Your task to perform on an android device: Open accessibility settings Image 0: 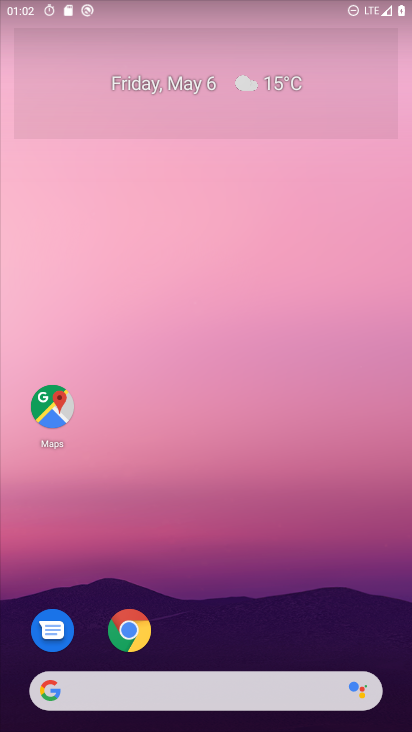
Step 0: drag from (333, 619) to (325, 137)
Your task to perform on an android device: Open accessibility settings Image 1: 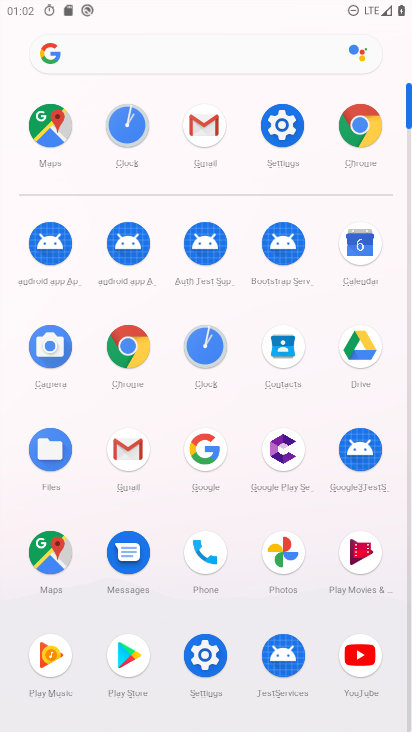
Step 1: click (269, 128)
Your task to perform on an android device: Open accessibility settings Image 2: 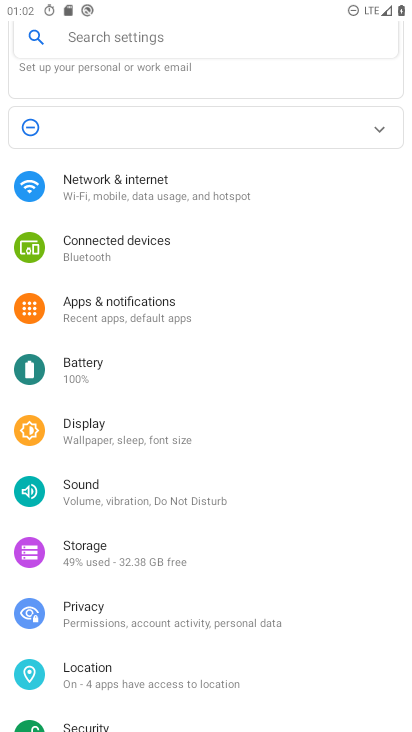
Step 2: drag from (211, 643) to (303, 51)
Your task to perform on an android device: Open accessibility settings Image 3: 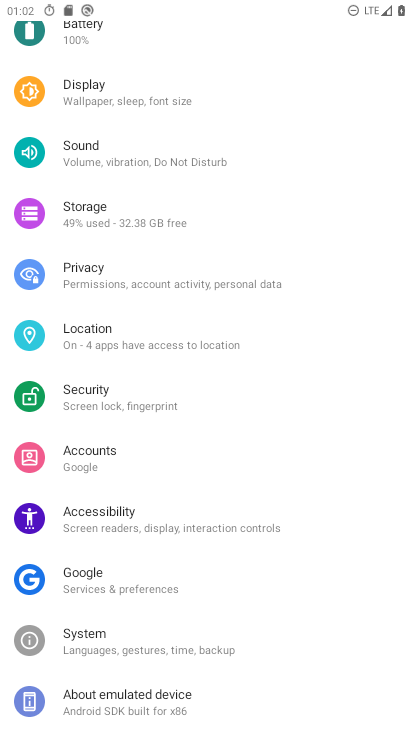
Step 3: click (165, 516)
Your task to perform on an android device: Open accessibility settings Image 4: 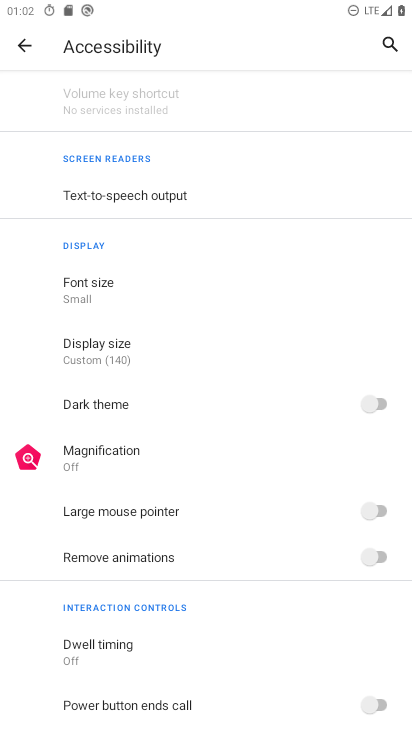
Step 4: task complete